Your task to perform on an android device: Go to display settings Image 0: 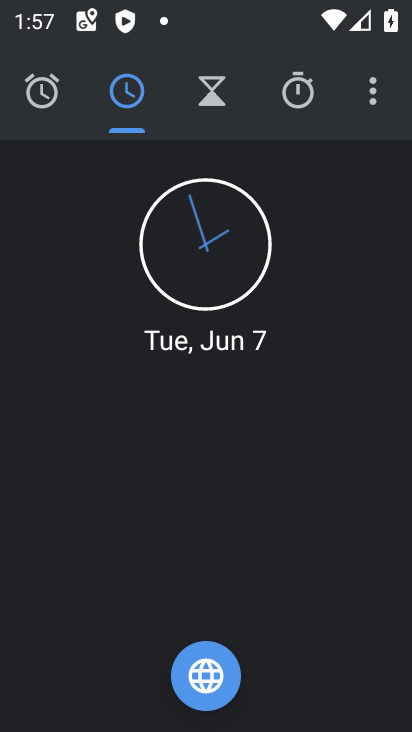
Step 0: press home button
Your task to perform on an android device: Go to display settings Image 1: 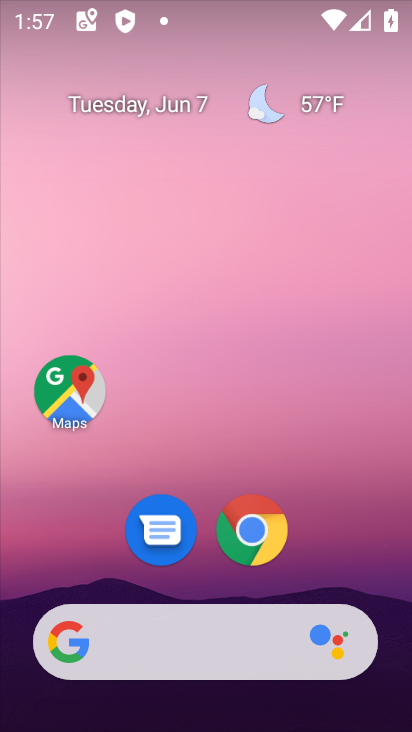
Step 1: drag from (312, 432) to (327, 76)
Your task to perform on an android device: Go to display settings Image 2: 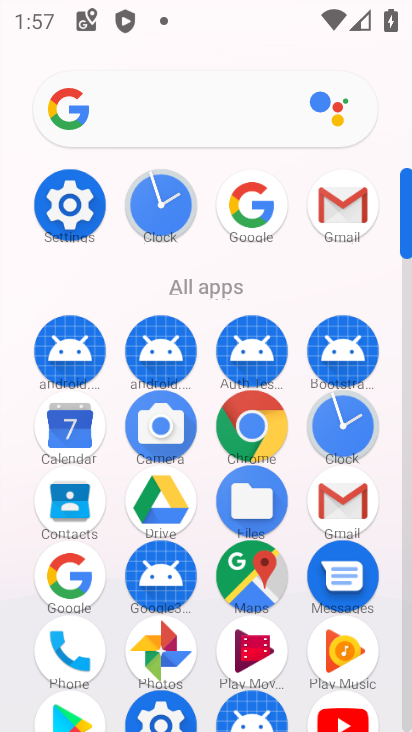
Step 2: click (73, 211)
Your task to perform on an android device: Go to display settings Image 3: 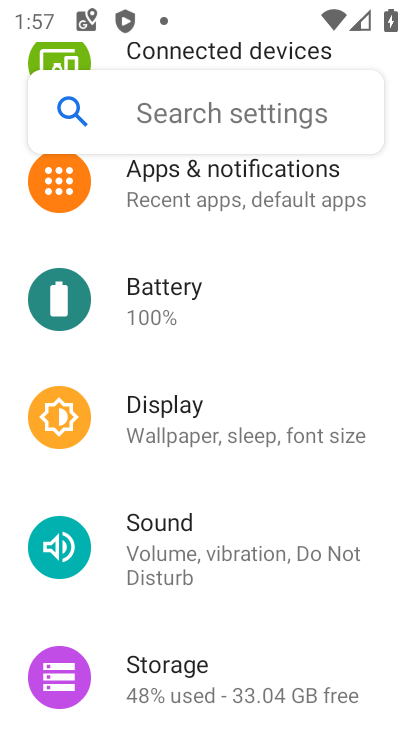
Step 3: click (207, 420)
Your task to perform on an android device: Go to display settings Image 4: 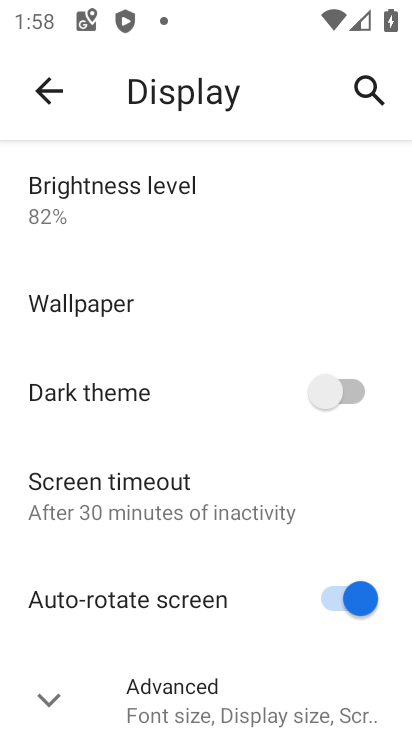
Step 4: task complete